Your task to perform on an android device: change text size in settings app Image 0: 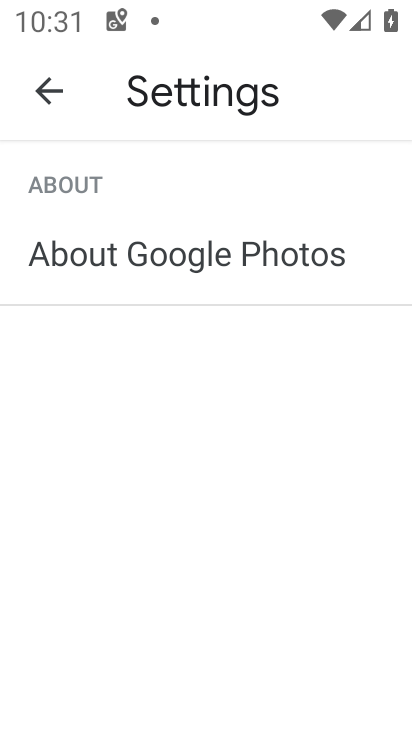
Step 0: press home button
Your task to perform on an android device: change text size in settings app Image 1: 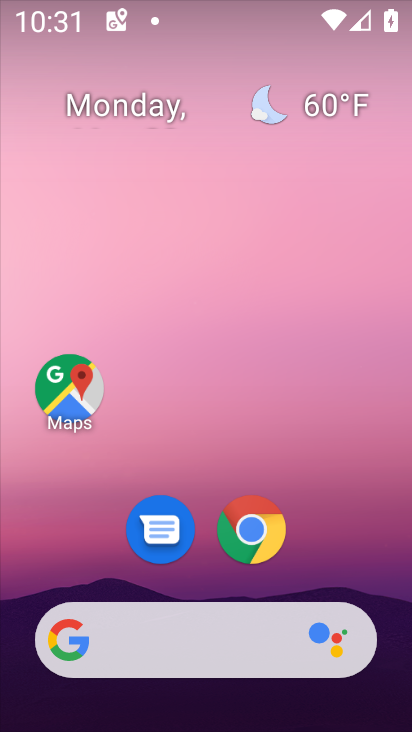
Step 1: drag from (327, 493) to (291, 94)
Your task to perform on an android device: change text size in settings app Image 2: 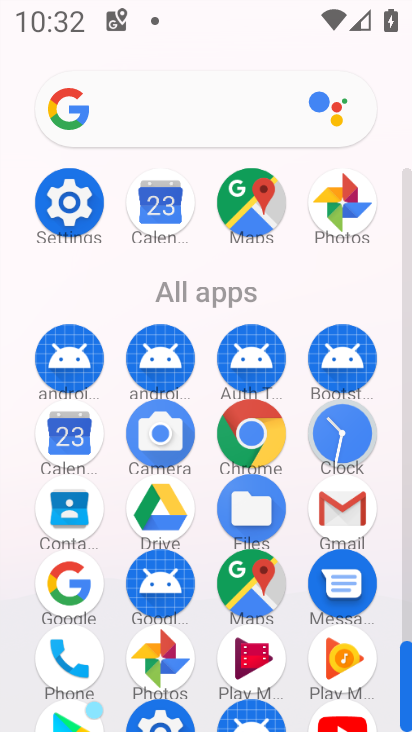
Step 2: click (78, 199)
Your task to perform on an android device: change text size in settings app Image 3: 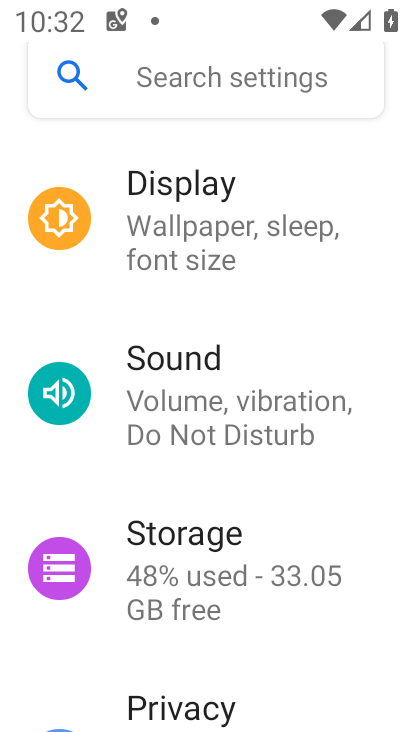
Step 3: click (192, 228)
Your task to perform on an android device: change text size in settings app Image 4: 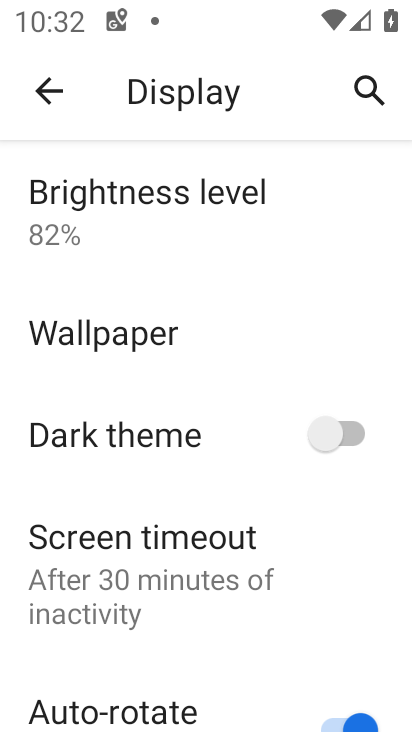
Step 4: drag from (232, 627) to (194, 254)
Your task to perform on an android device: change text size in settings app Image 5: 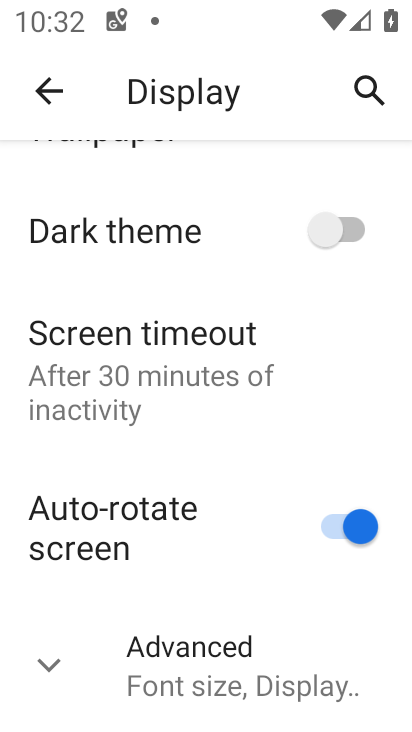
Step 5: click (137, 656)
Your task to perform on an android device: change text size in settings app Image 6: 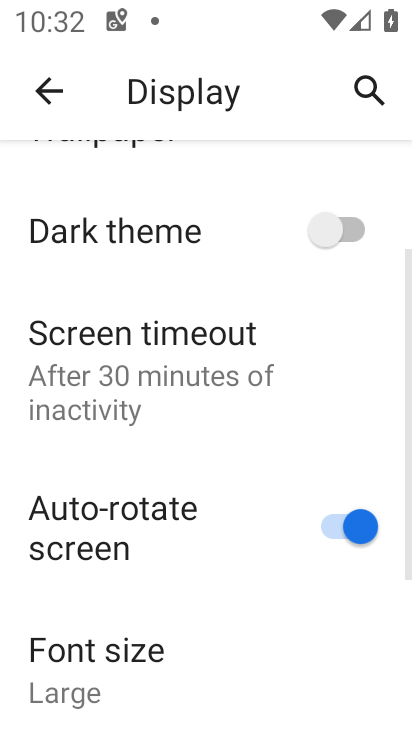
Step 6: drag from (237, 579) to (209, 211)
Your task to perform on an android device: change text size in settings app Image 7: 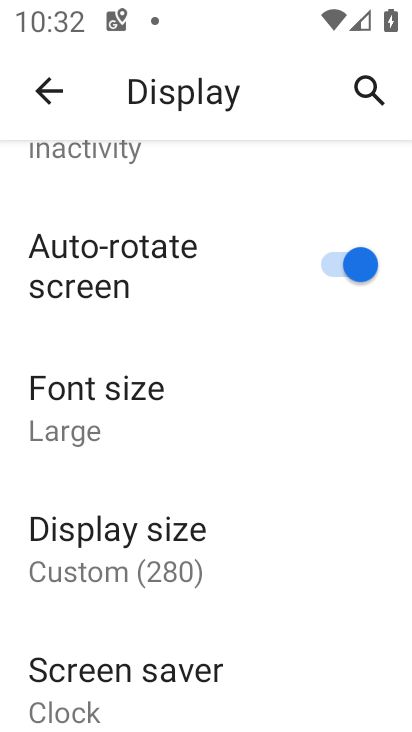
Step 7: click (81, 397)
Your task to perform on an android device: change text size in settings app Image 8: 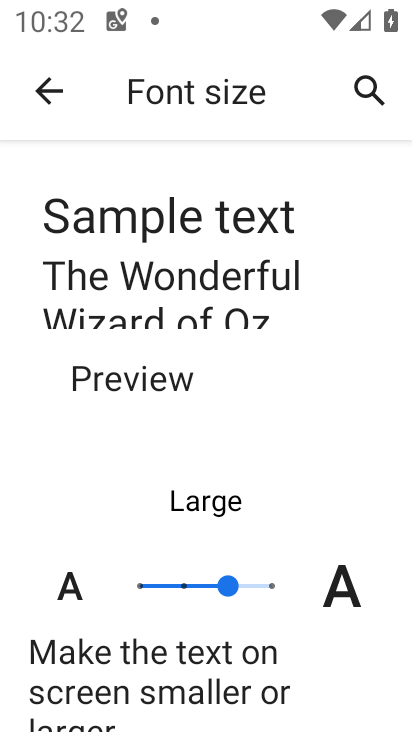
Step 8: click (177, 573)
Your task to perform on an android device: change text size in settings app Image 9: 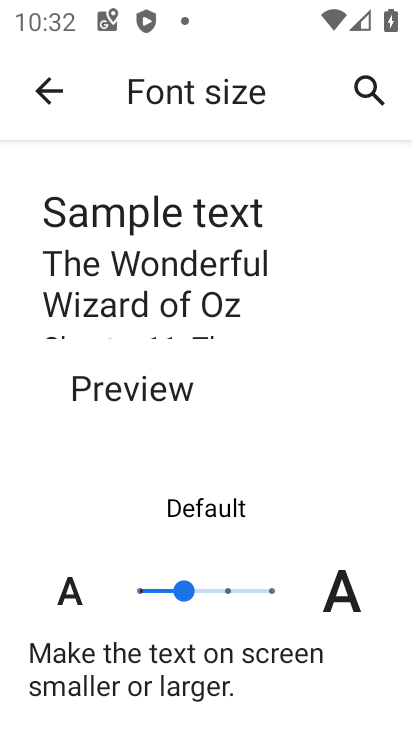
Step 9: task complete